Your task to perform on an android device: Do I have any events today? Image 0: 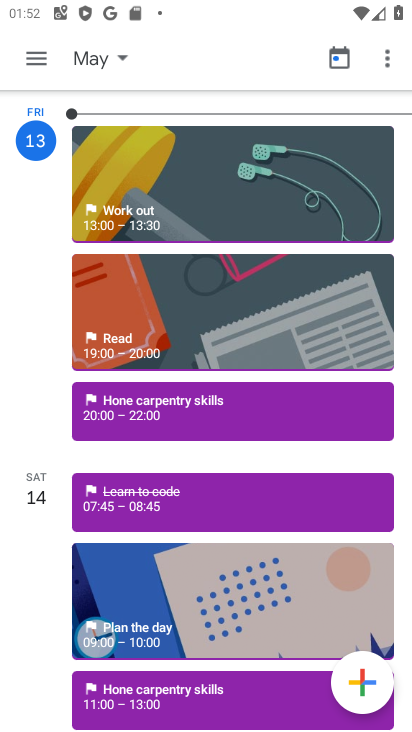
Step 0: press home button
Your task to perform on an android device: Do I have any events today? Image 1: 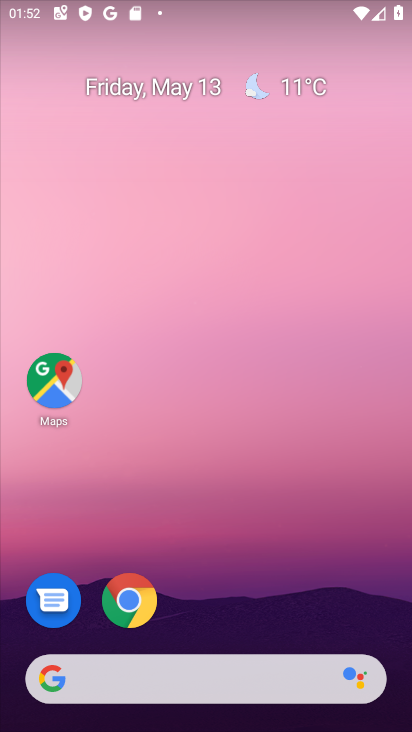
Step 1: drag from (198, 608) to (264, 216)
Your task to perform on an android device: Do I have any events today? Image 2: 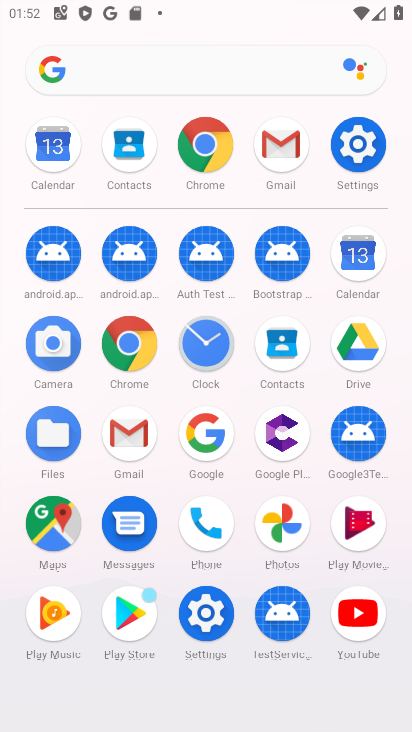
Step 2: click (348, 256)
Your task to perform on an android device: Do I have any events today? Image 3: 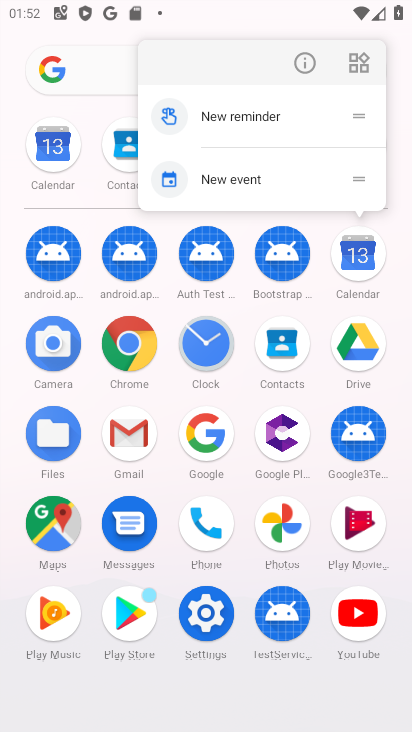
Step 3: click (308, 75)
Your task to perform on an android device: Do I have any events today? Image 4: 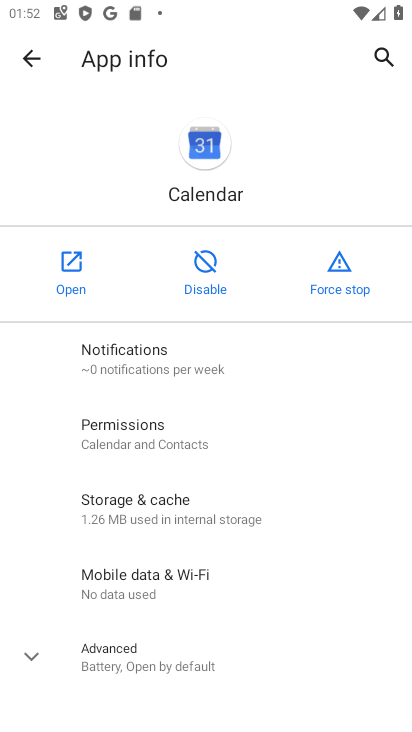
Step 4: click (74, 288)
Your task to perform on an android device: Do I have any events today? Image 5: 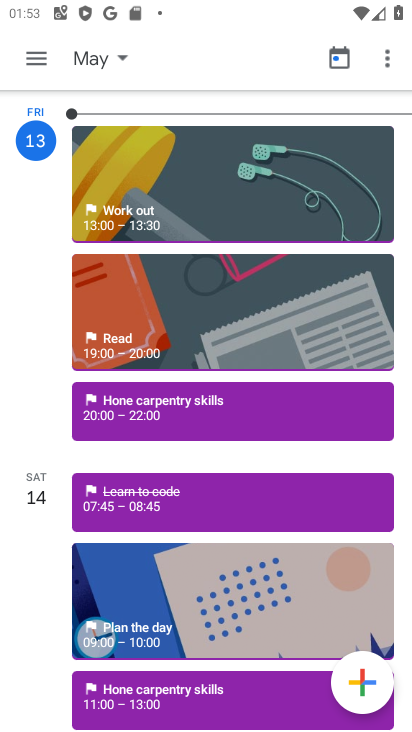
Step 5: click (107, 53)
Your task to perform on an android device: Do I have any events today? Image 6: 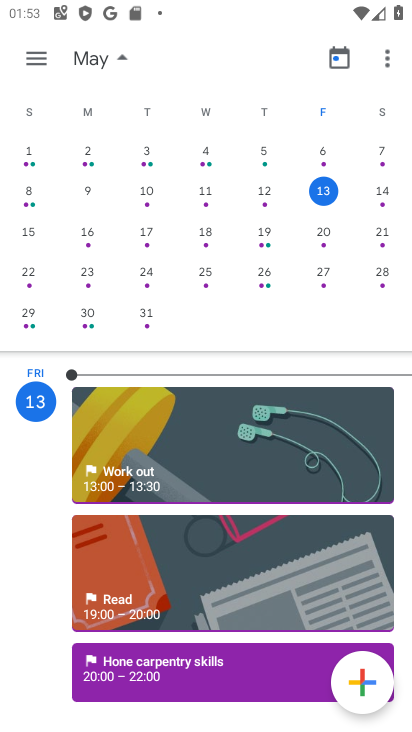
Step 6: click (327, 195)
Your task to perform on an android device: Do I have any events today? Image 7: 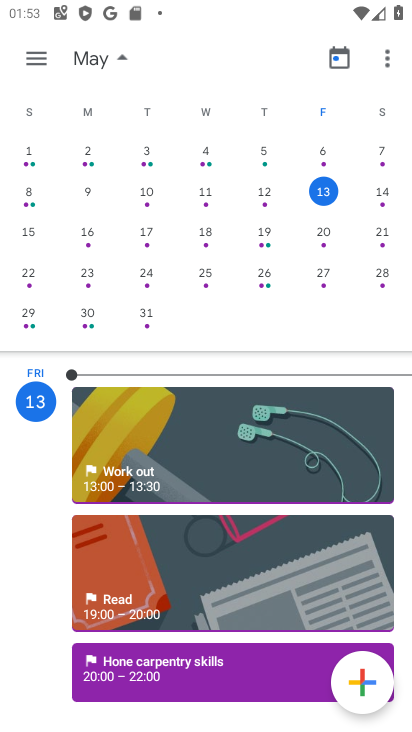
Step 7: task complete